Your task to perform on an android device: Go to internet settings Image 0: 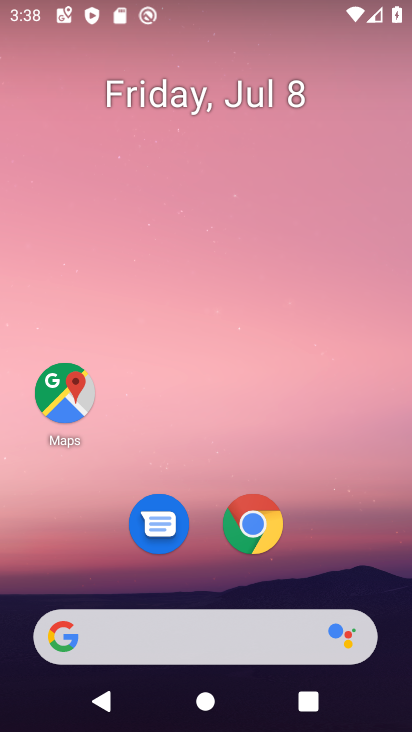
Step 0: drag from (217, 470) to (265, 0)
Your task to perform on an android device: Go to internet settings Image 1: 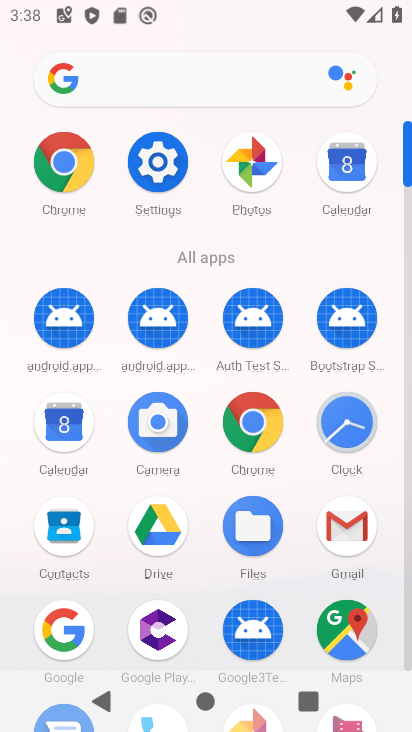
Step 1: click (169, 167)
Your task to perform on an android device: Go to internet settings Image 2: 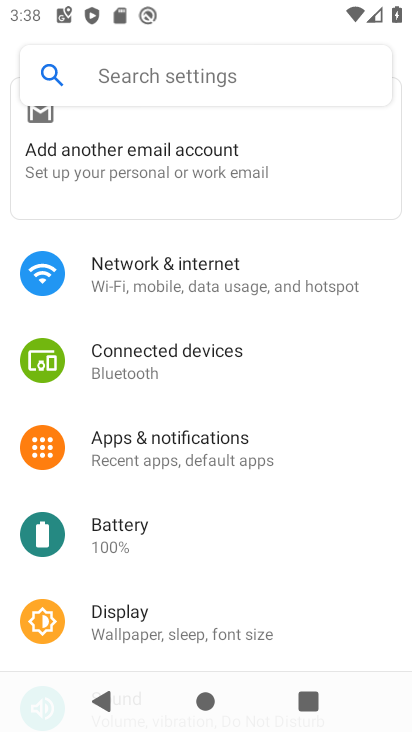
Step 2: click (211, 277)
Your task to perform on an android device: Go to internet settings Image 3: 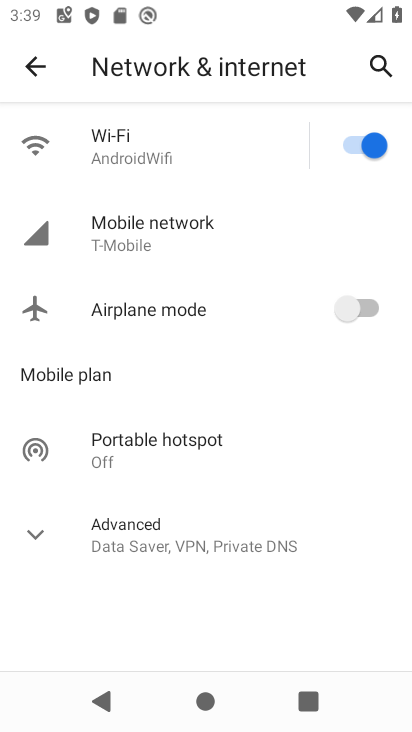
Step 3: task complete